Your task to perform on an android device: toggle data saver in the chrome app Image 0: 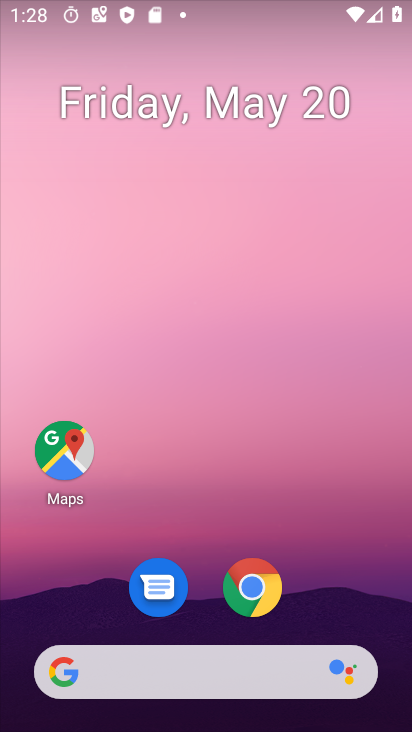
Step 0: drag from (344, 478) to (298, 165)
Your task to perform on an android device: toggle data saver in the chrome app Image 1: 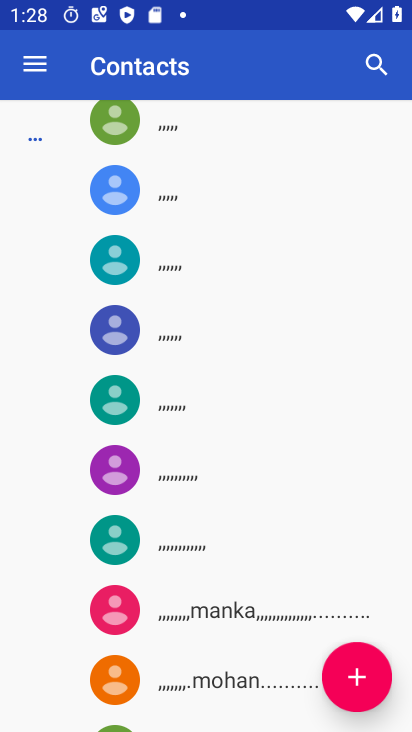
Step 1: press home button
Your task to perform on an android device: toggle data saver in the chrome app Image 2: 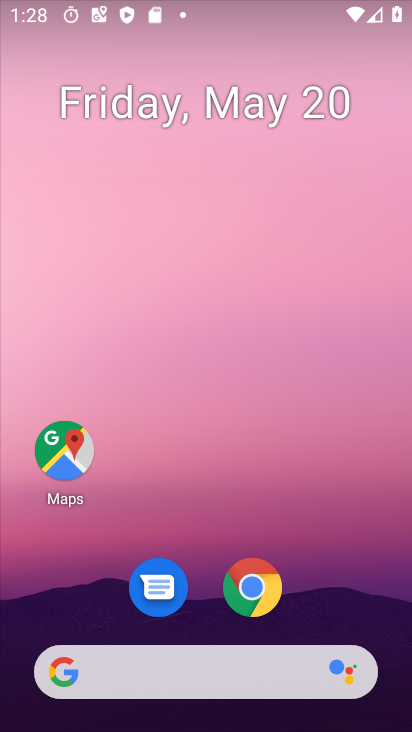
Step 2: click (256, 579)
Your task to perform on an android device: toggle data saver in the chrome app Image 3: 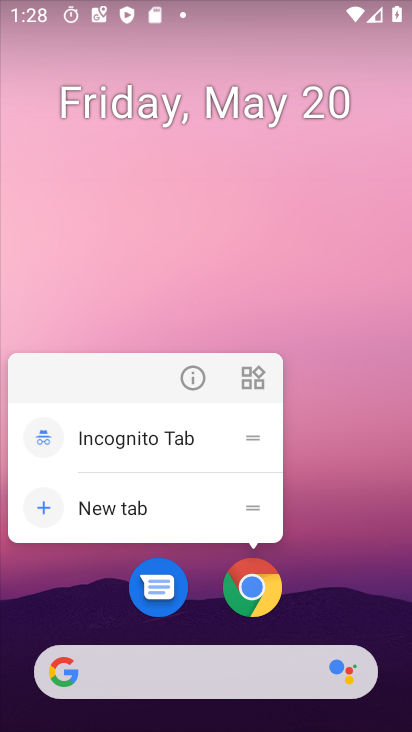
Step 3: click (254, 586)
Your task to perform on an android device: toggle data saver in the chrome app Image 4: 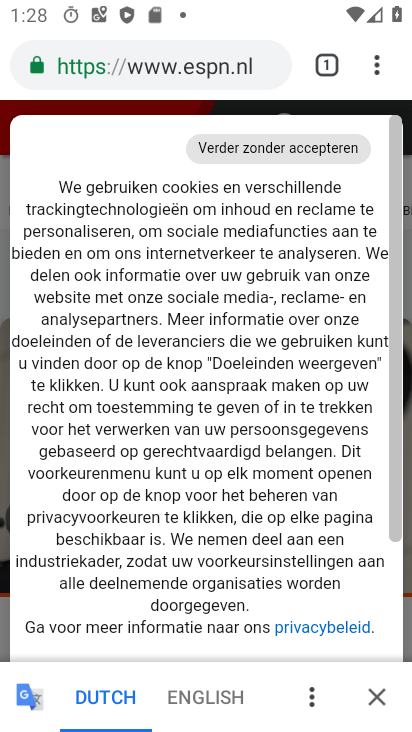
Step 4: click (391, 73)
Your task to perform on an android device: toggle data saver in the chrome app Image 5: 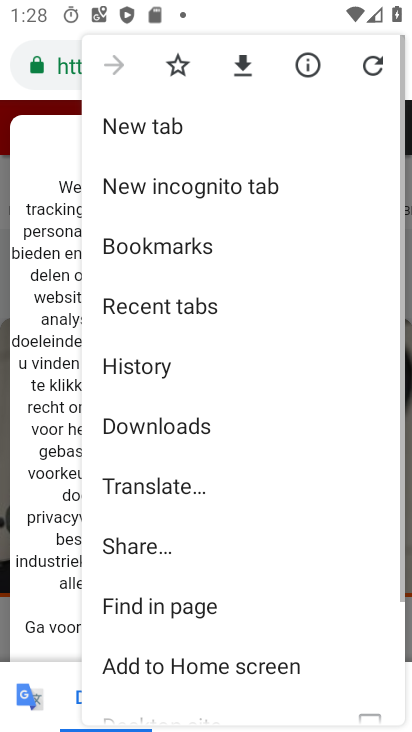
Step 5: drag from (218, 613) to (281, 128)
Your task to perform on an android device: toggle data saver in the chrome app Image 6: 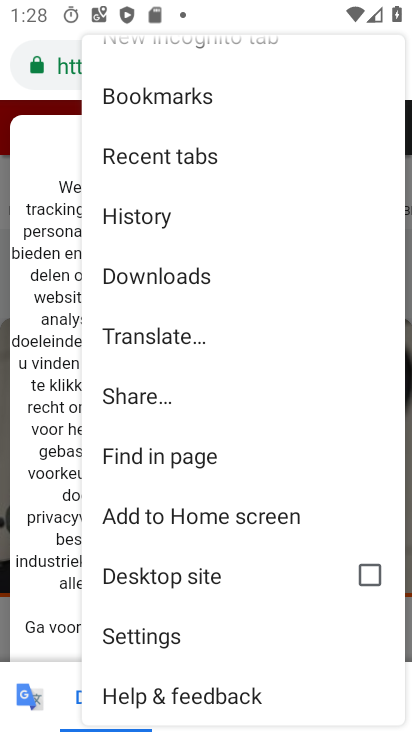
Step 6: click (147, 642)
Your task to perform on an android device: toggle data saver in the chrome app Image 7: 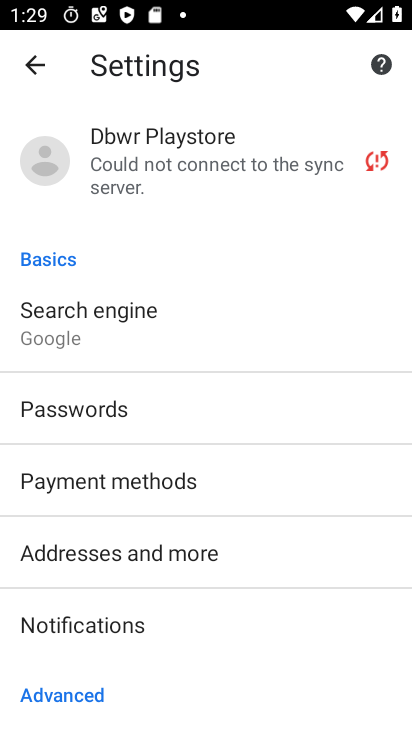
Step 7: drag from (192, 572) to (247, 130)
Your task to perform on an android device: toggle data saver in the chrome app Image 8: 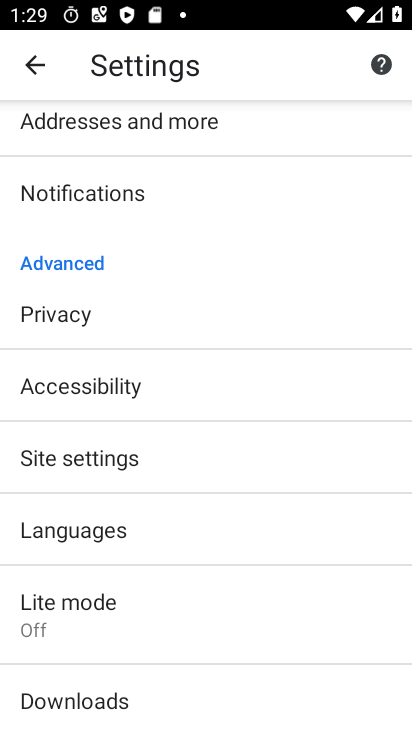
Step 8: click (83, 603)
Your task to perform on an android device: toggle data saver in the chrome app Image 9: 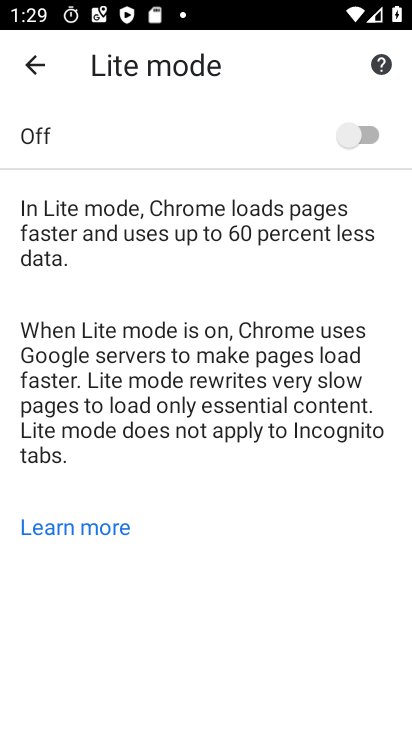
Step 9: click (372, 127)
Your task to perform on an android device: toggle data saver in the chrome app Image 10: 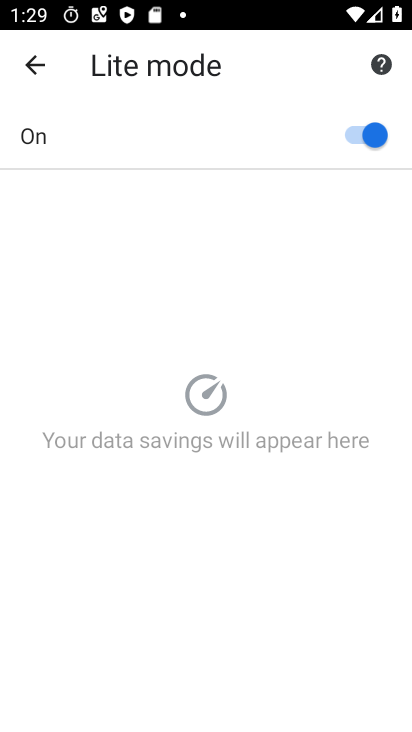
Step 10: task complete